Your task to perform on an android device: What's the weather today? Image 0: 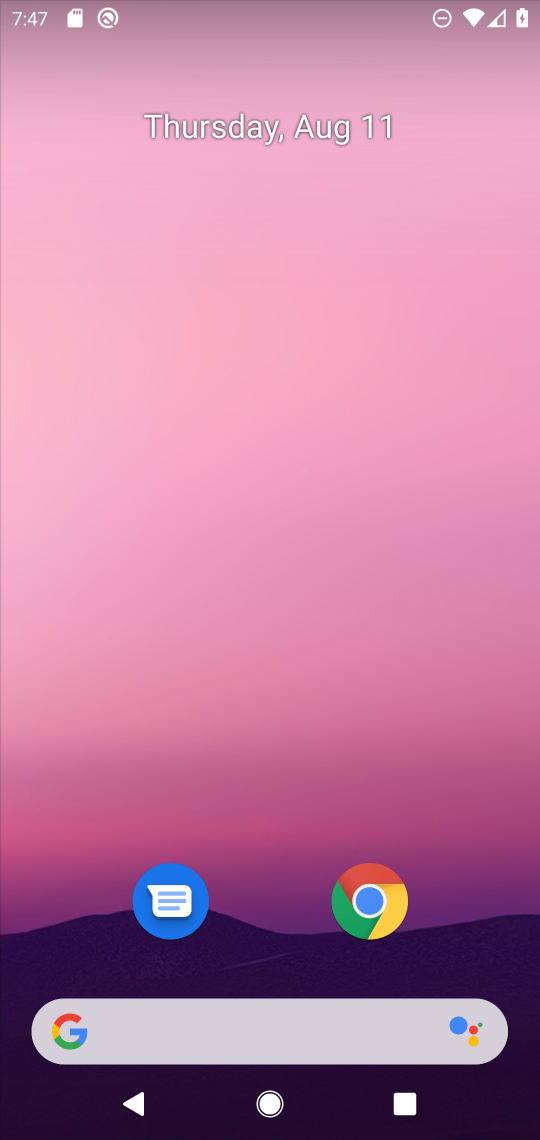
Step 0: drag from (317, 939) to (474, 154)
Your task to perform on an android device: What's the weather today? Image 1: 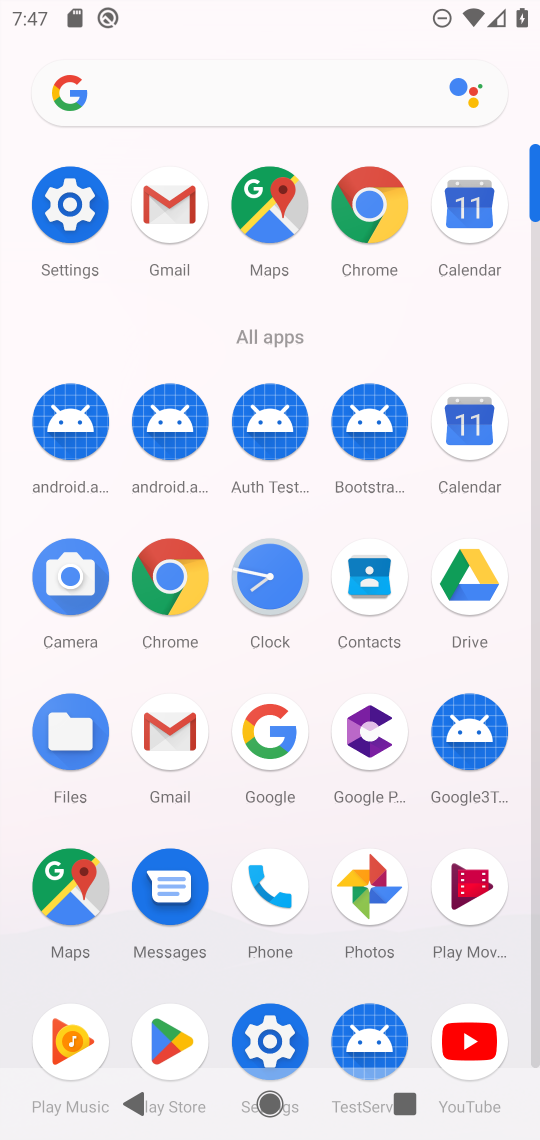
Step 1: click (187, 579)
Your task to perform on an android device: What's the weather today? Image 2: 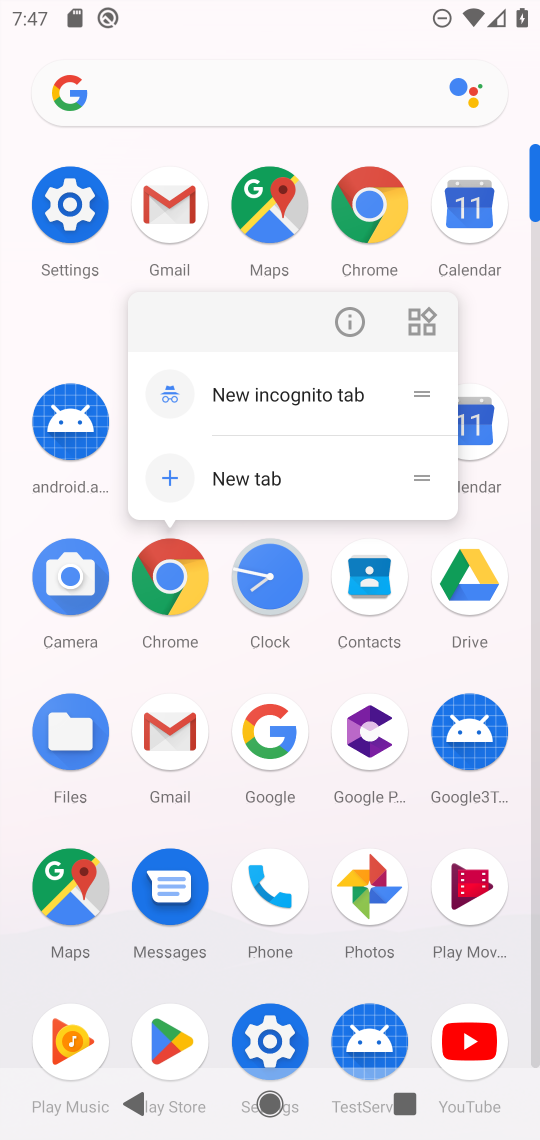
Step 2: click (179, 577)
Your task to perform on an android device: What's the weather today? Image 3: 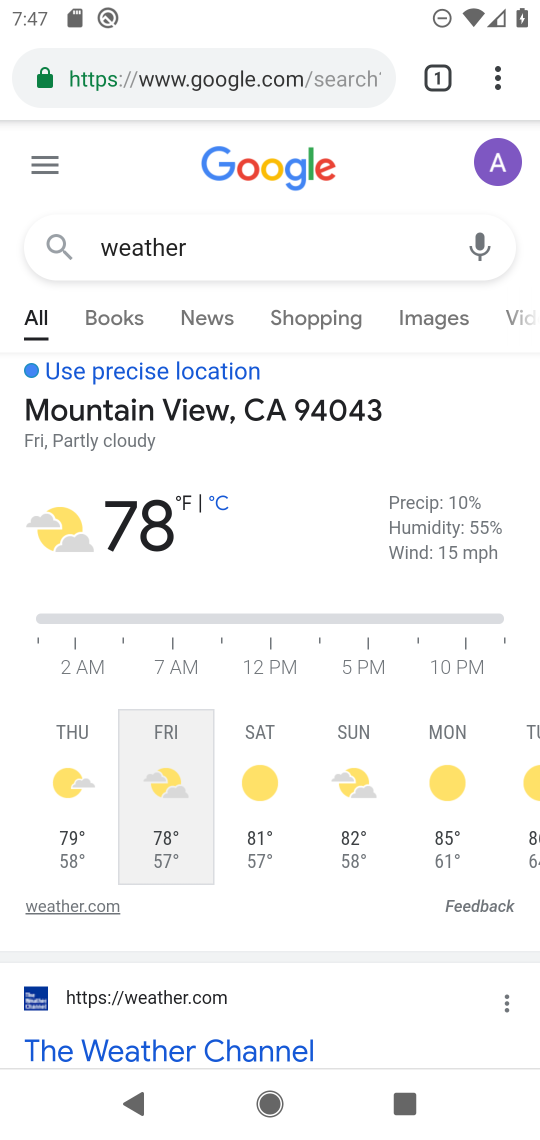
Step 3: task complete